Your task to perform on an android device: Show me productivity apps on the Play Store Image 0: 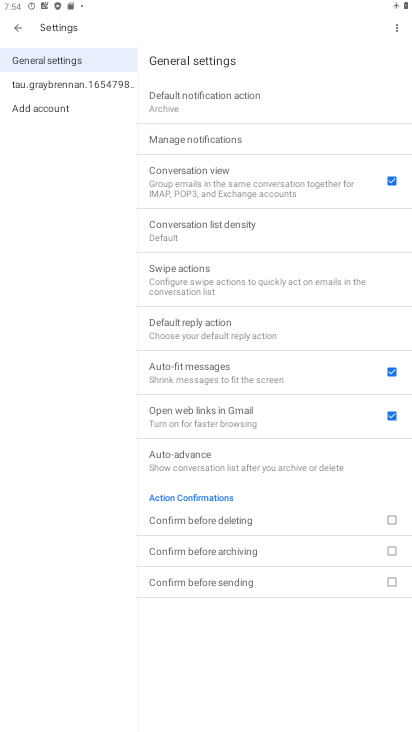
Step 0: press home button
Your task to perform on an android device: Show me productivity apps on the Play Store Image 1: 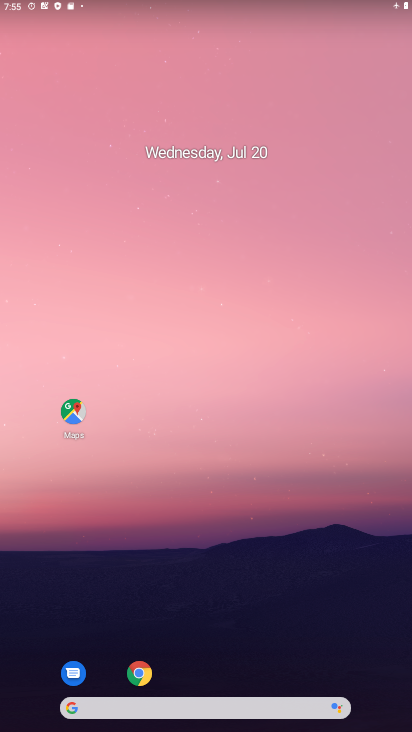
Step 1: drag from (352, 667) to (127, 47)
Your task to perform on an android device: Show me productivity apps on the Play Store Image 2: 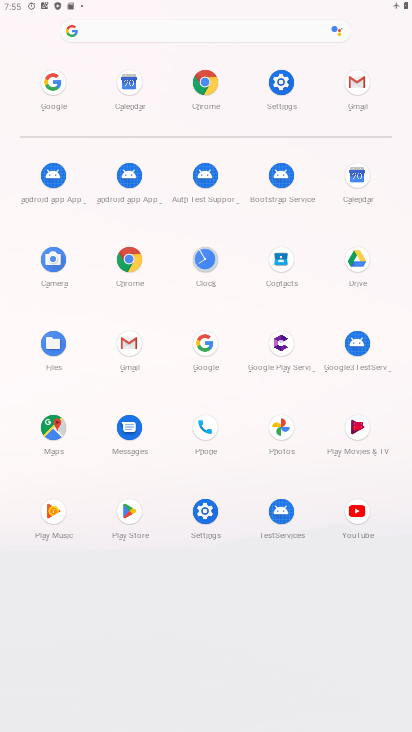
Step 2: click (141, 519)
Your task to perform on an android device: Show me productivity apps on the Play Store Image 3: 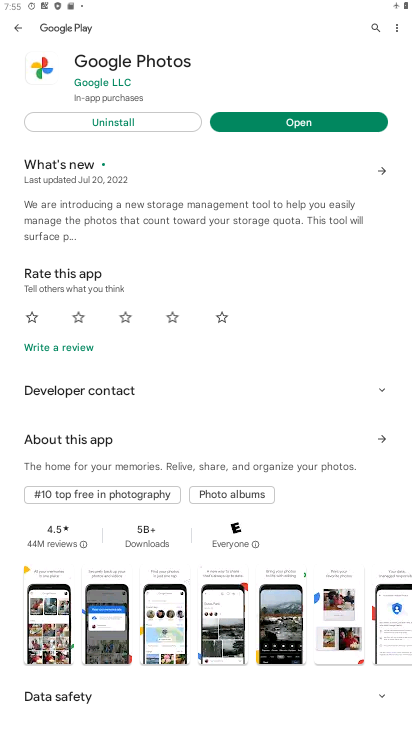
Step 3: task complete